Your task to perform on an android device: Go to wifi settings Image 0: 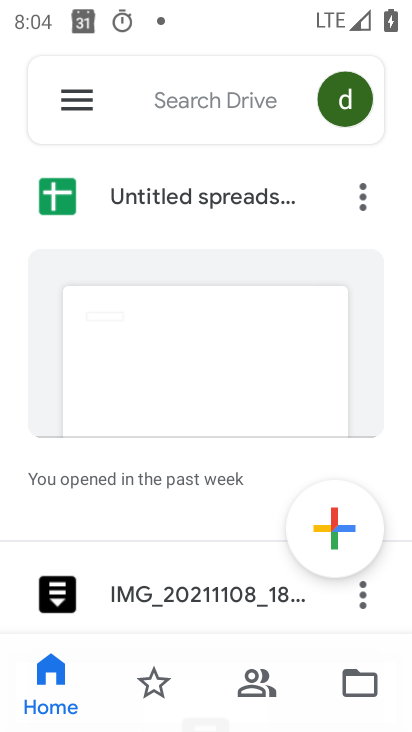
Step 0: press home button
Your task to perform on an android device: Go to wifi settings Image 1: 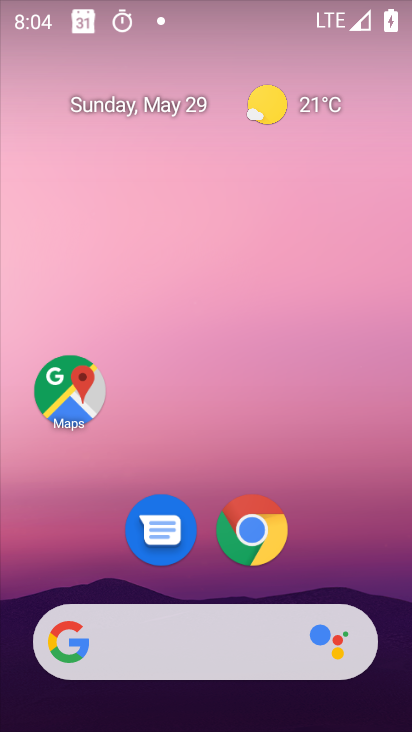
Step 1: drag from (227, 582) to (340, 54)
Your task to perform on an android device: Go to wifi settings Image 2: 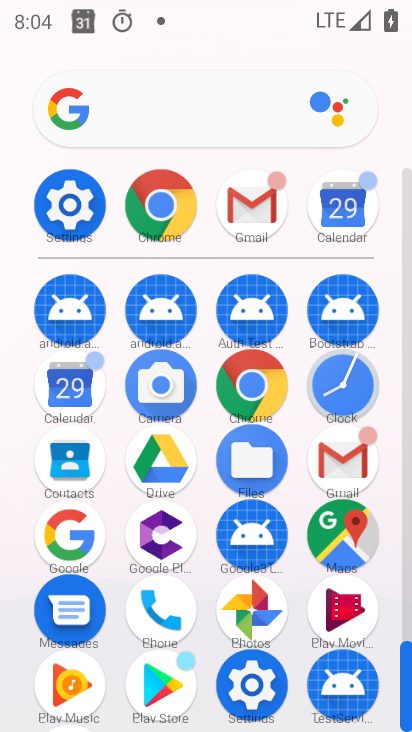
Step 2: click (51, 213)
Your task to perform on an android device: Go to wifi settings Image 3: 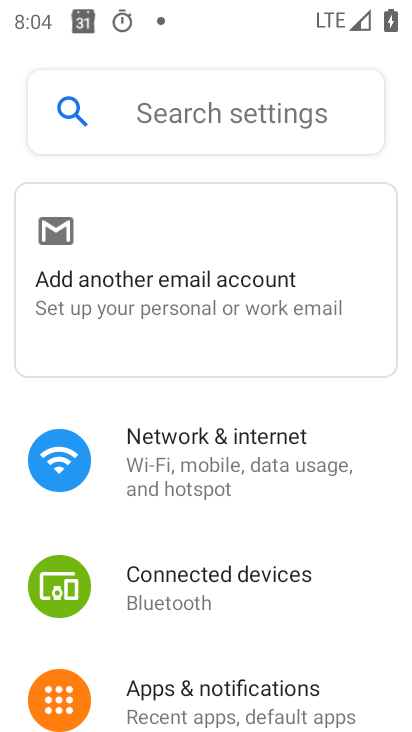
Step 3: click (219, 459)
Your task to perform on an android device: Go to wifi settings Image 4: 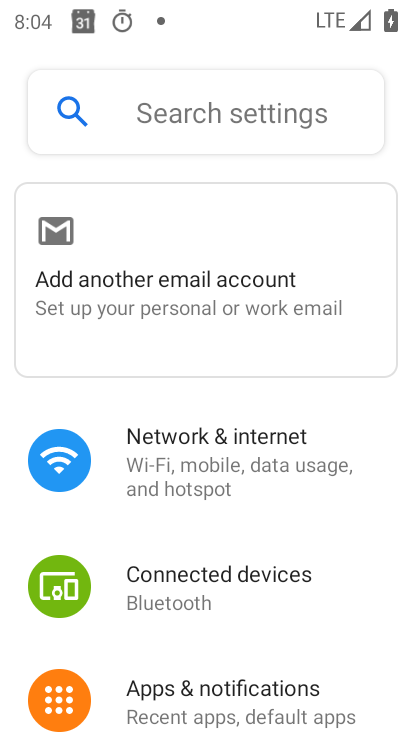
Step 4: click (221, 482)
Your task to perform on an android device: Go to wifi settings Image 5: 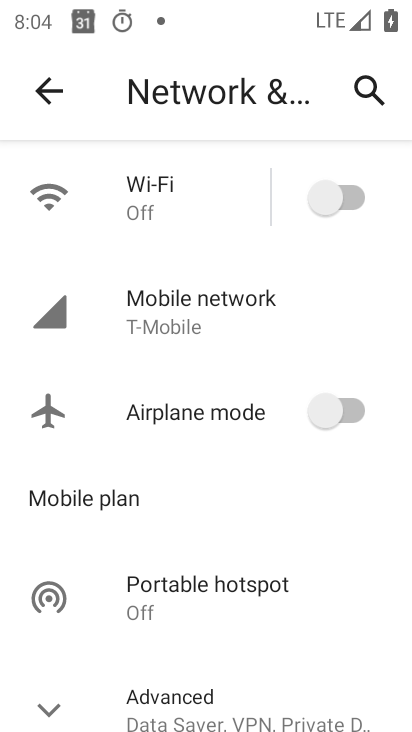
Step 5: click (191, 221)
Your task to perform on an android device: Go to wifi settings Image 6: 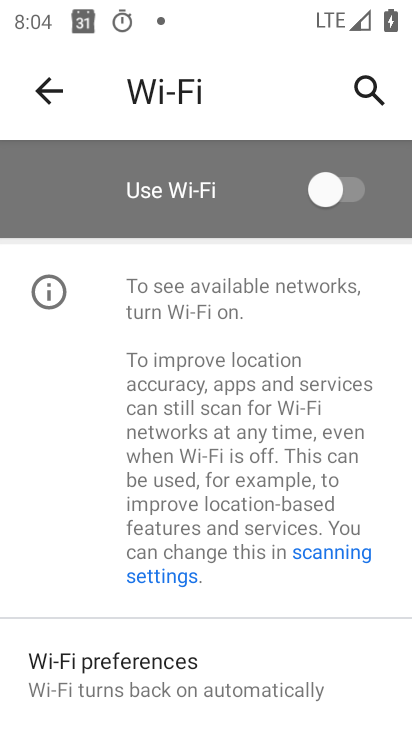
Step 6: task complete